Your task to perform on an android device: delete the emails in spam in the gmail app Image 0: 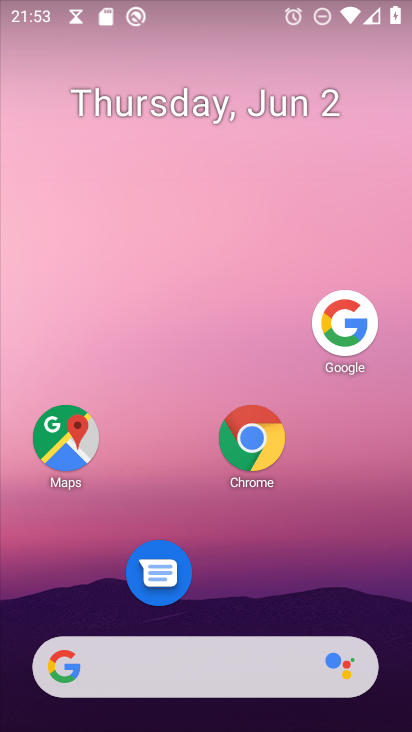
Step 0: press home button
Your task to perform on an android device: delete the emails in spam in the gmail app Image 1: 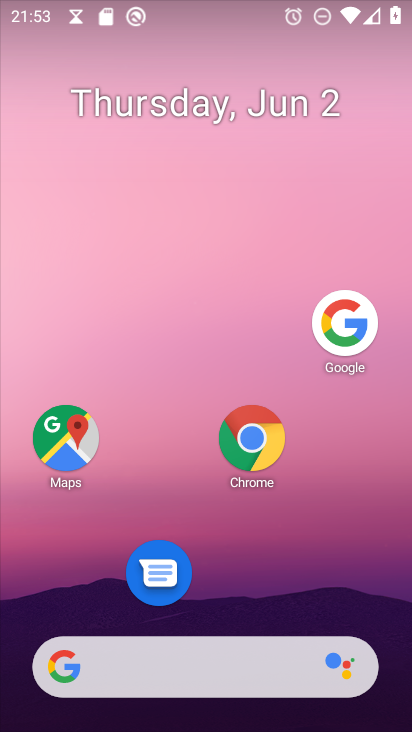
Step 1: drag from (172, 675) to (302, 216)
Your task to perform on an android device: delete the emails in spam in the gmail app Image 2: 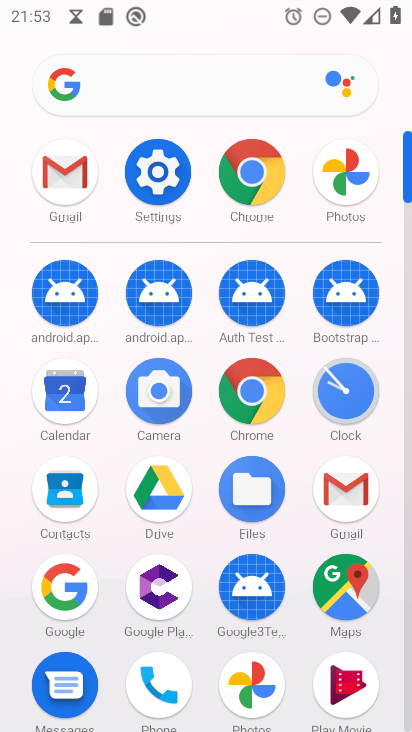
Step 2: click (66, 179)
Your task to perform on an android device: delete the emails in spam in the gmail app Image 3: 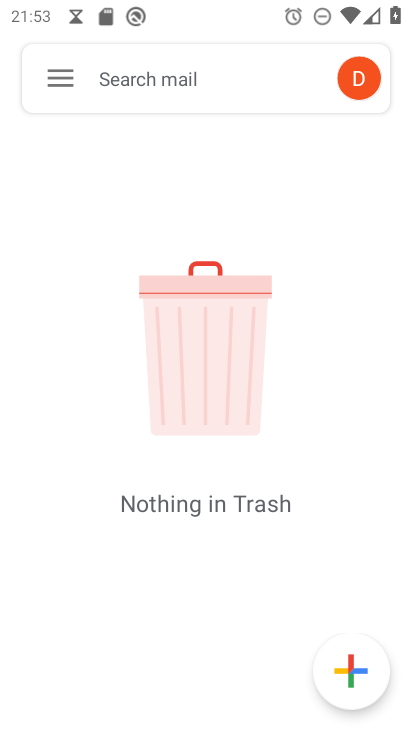
Step 3: click (63, 76)
Your task to perform on an android device: delete the emails in spam in the gmail app Image 4: 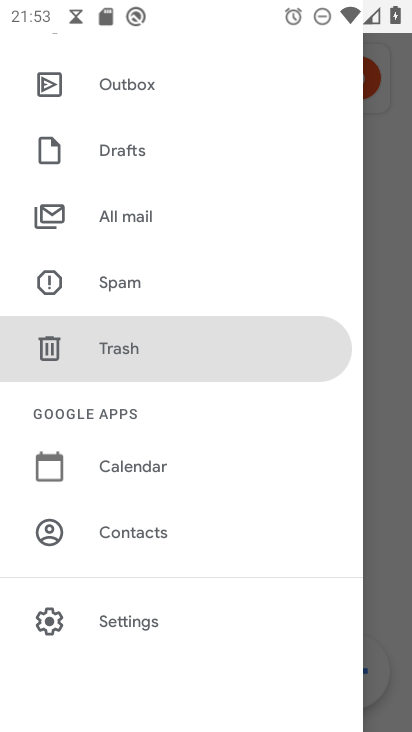
Step 4: click (116, 283)
Your task to perform on an android device: delete the emails in spam in the gmail app Image 5: 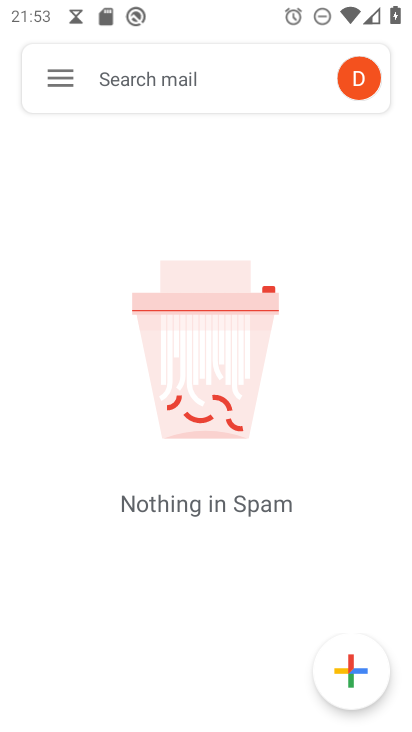
Step 5: click (135, 283)
Your task to perform on an android device: delete the emails in spam in the gmail app Image 6: 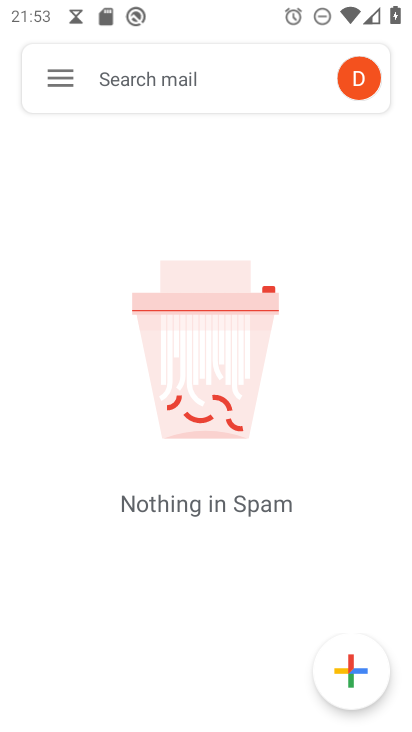
Step 6: task complete